Your task to perform on an android device: toggle wifi Image 0: 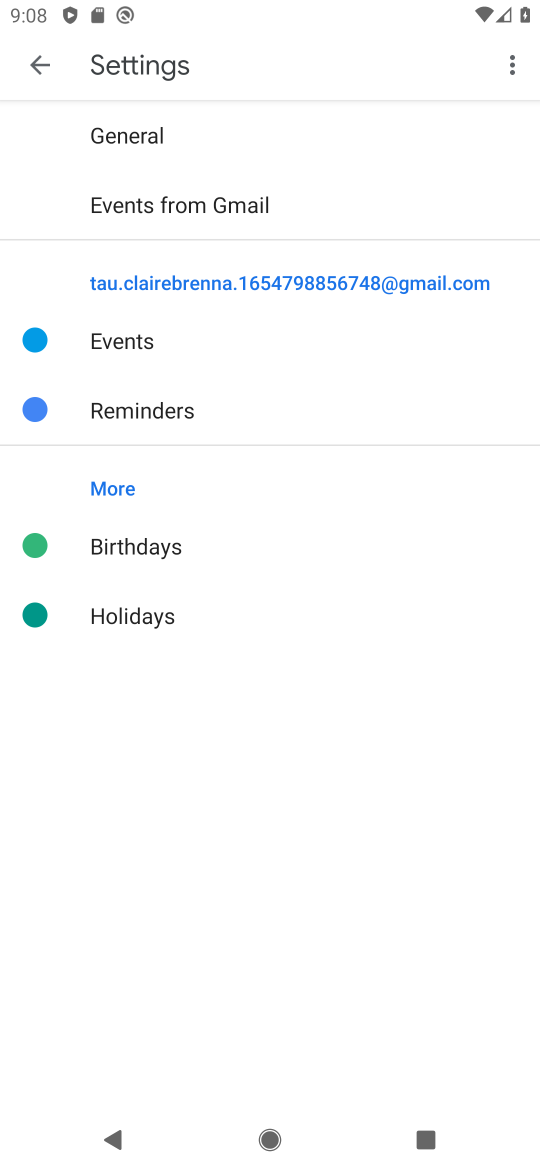
Step 0: press home button
Your task to perform on an android device: toggle wifi Image 1: 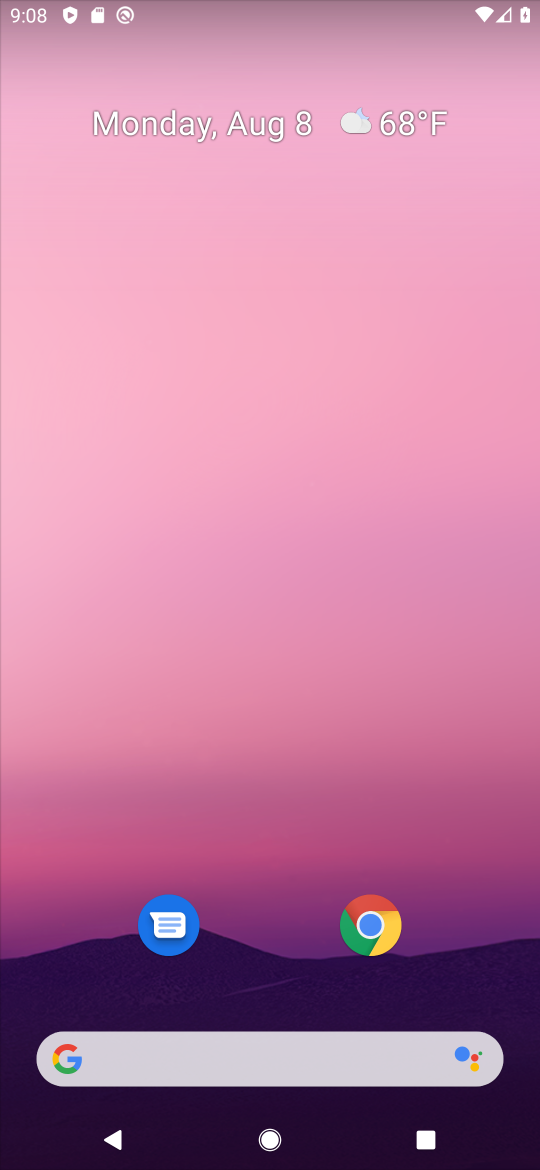
Step 1: drag from (284, 490) to (322, 95)
Your task to perform on an android device: toggle wifi Image 2: 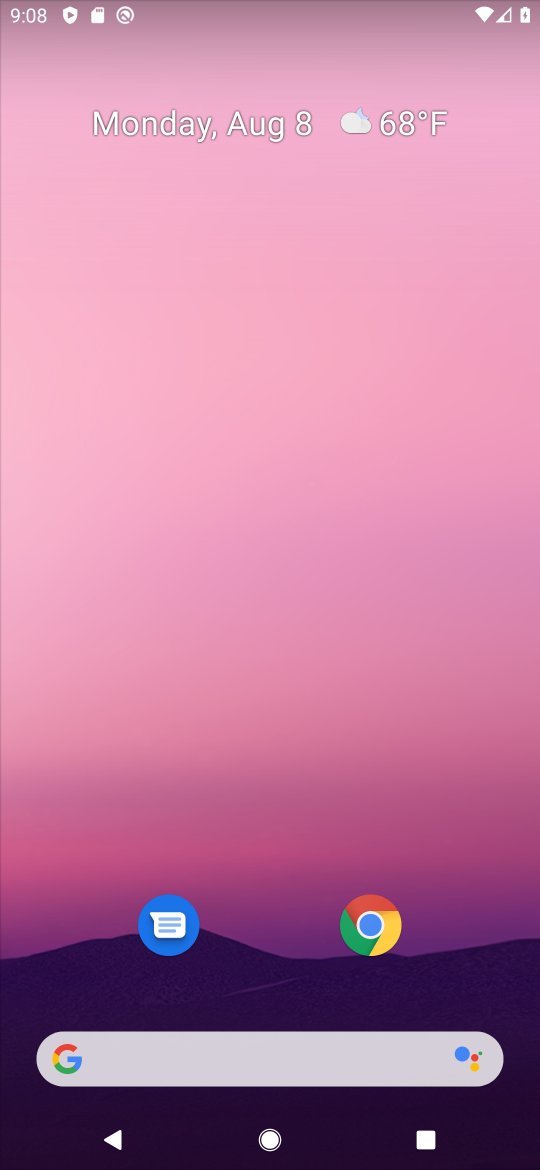
Step 2: drag from (234, 887) to (281, 94)
Your task to perform on an android device: toggle wifi Image 3: 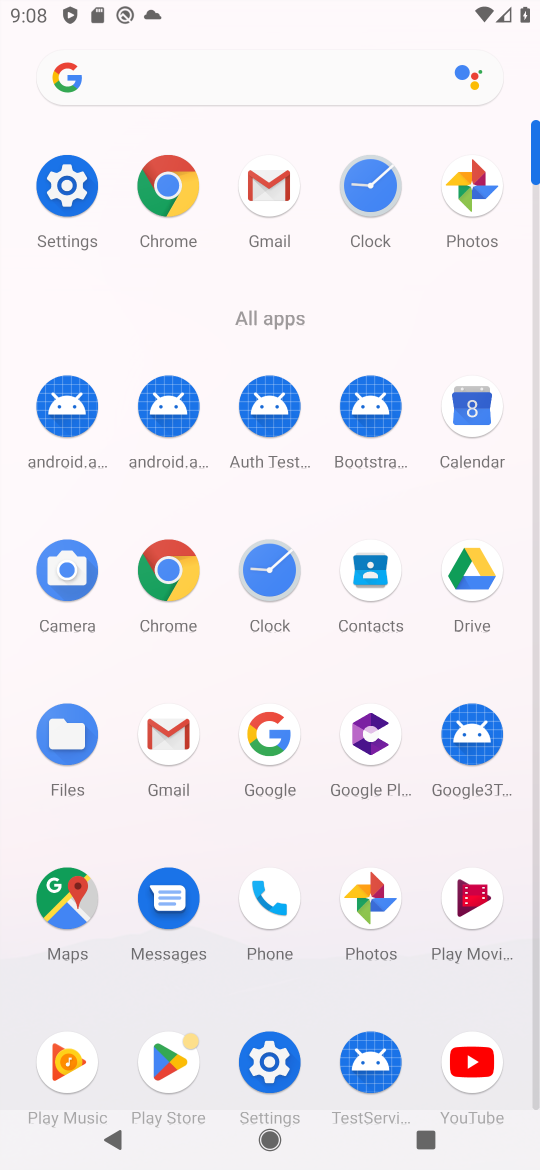
Step 3: click (83, 187)
Your task to perform on an android device: toggle wifi Image 4: 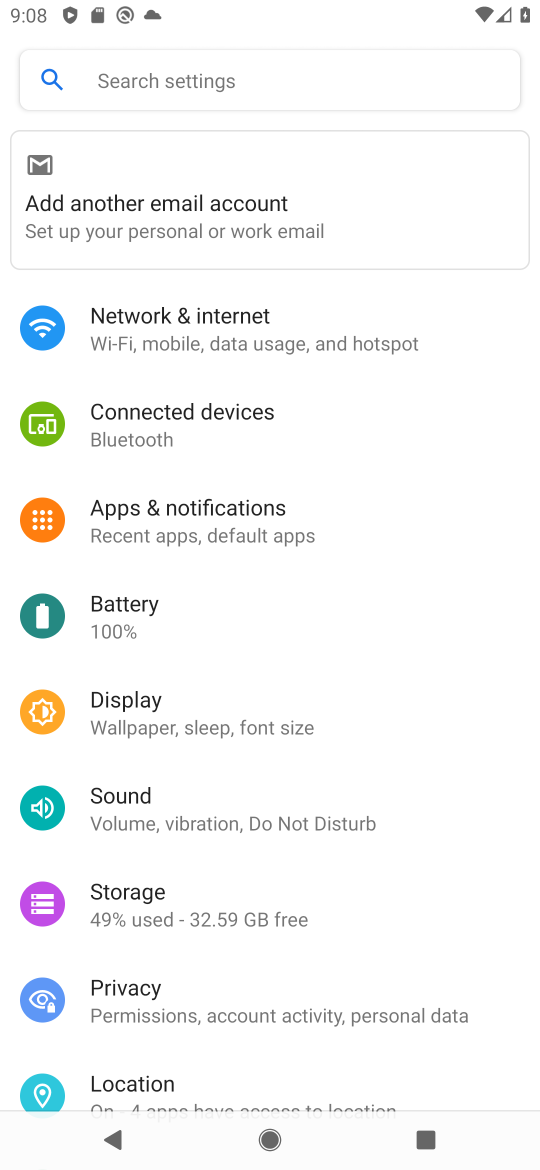
Step 4: click (198, 323)
Your task to perform on an android device: toggle wifi Image 5: 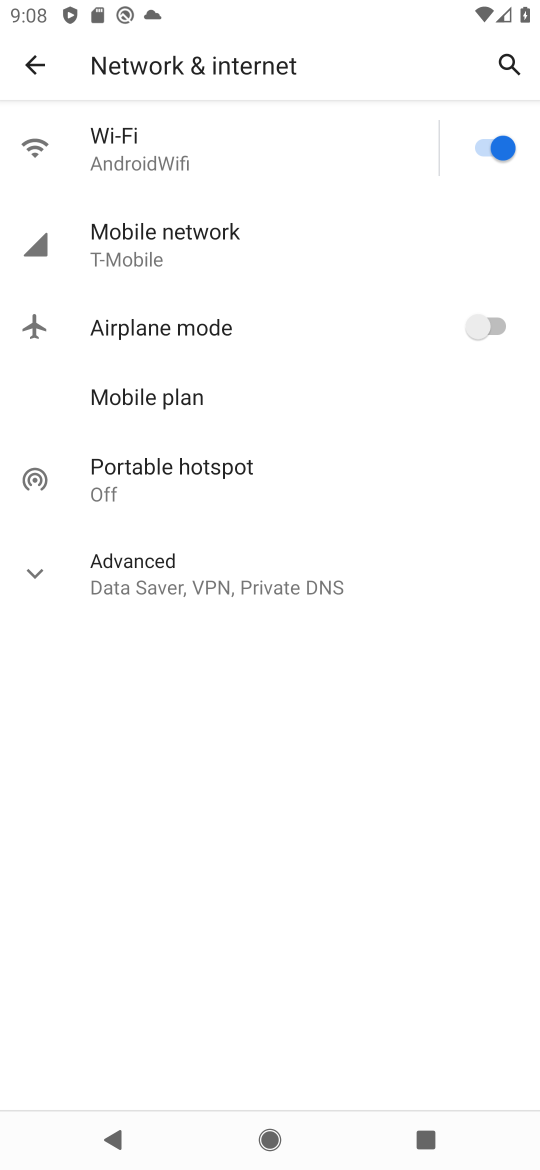
Step 5: click (494, 153)
Your task to perform on an android device: toggle wifi Image 6: 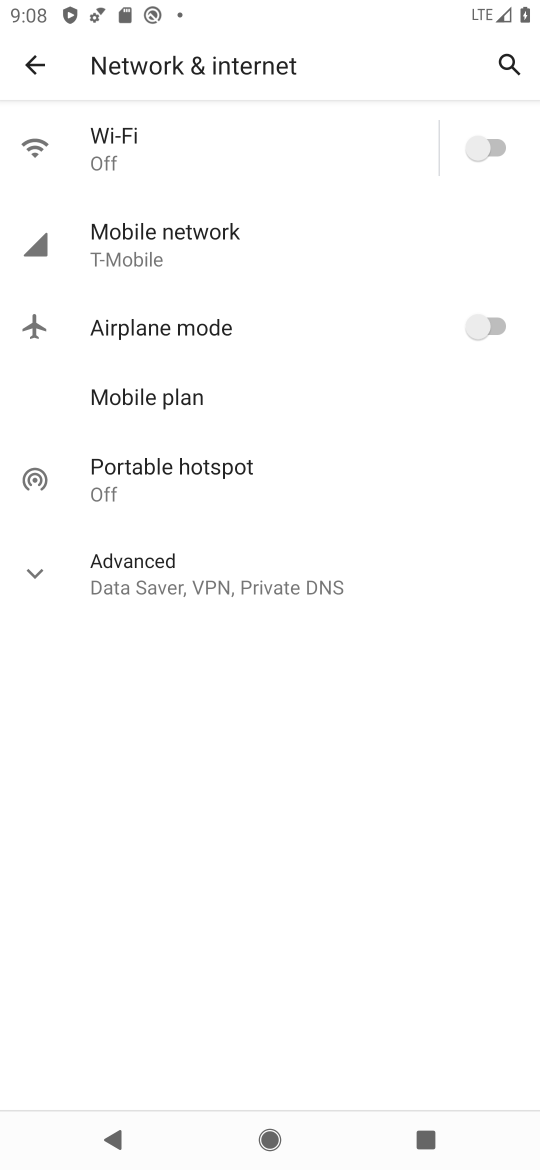
Step 6: task complete